Your task to perform on an android device: toggle javascript in the chrome app Image 0: 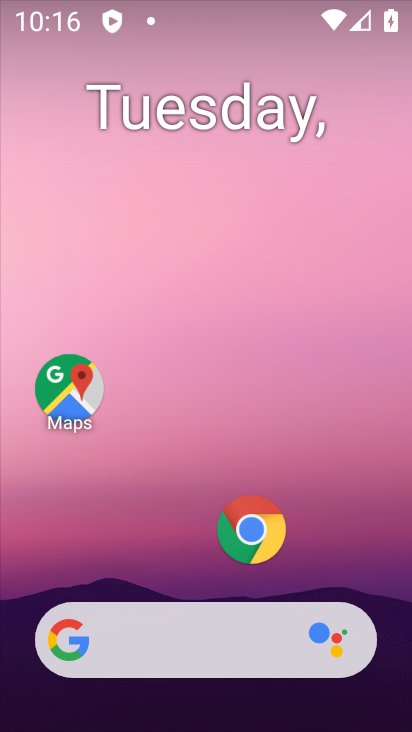
Step 0: click (249, 534)
Your task to perform on an android device: toggle javascript in the chrome app Image 1: 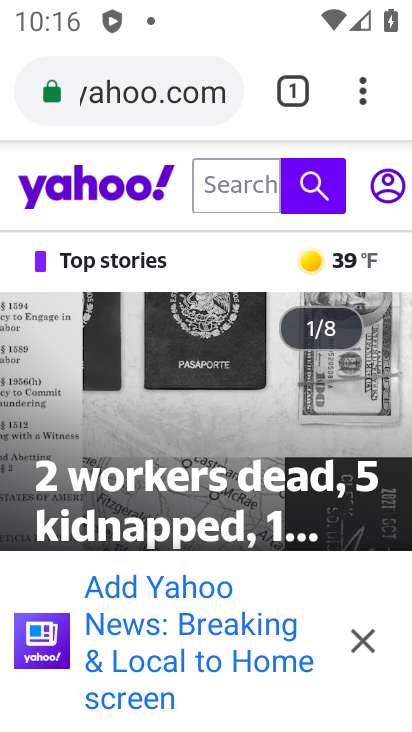
Step 1: click (371, 82)
Your task to perform on an android device: toggle javascript in the chrome app Image 2: 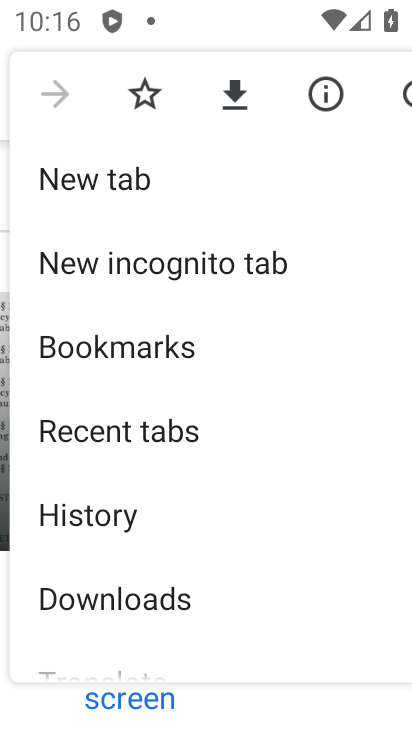
Step 2: drag from (149, 601) to (155, 282)
Your task to perform on an android device: toggle javascript in the chrome app Image 3: 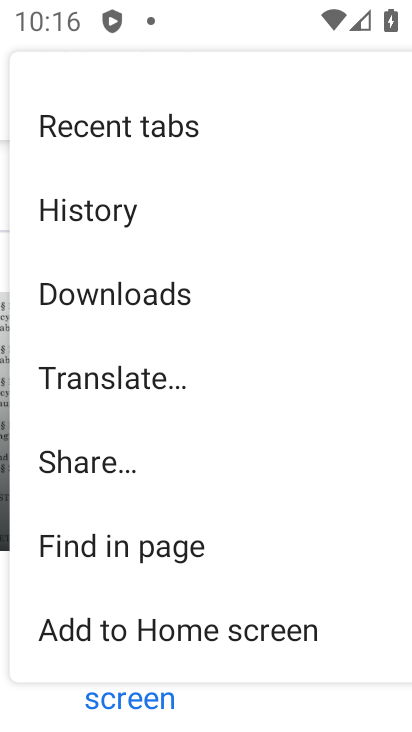
Step 3: drag from (160, 498) to (196, 211)
Your task to perform on an android device: toggle javascript in the chrome app Image 4: 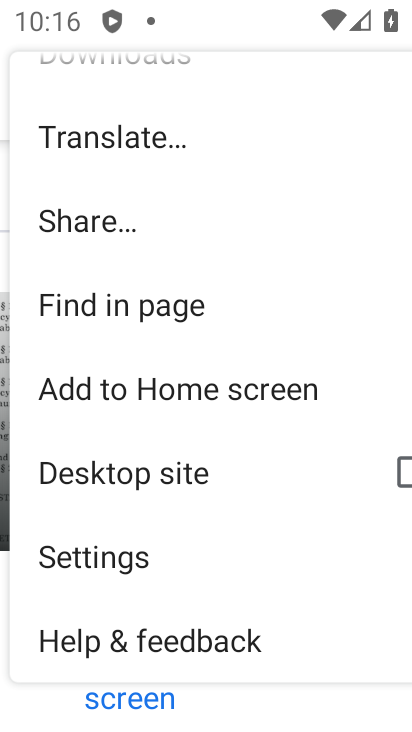
Step 4: click (96, 562)
Your task to perform on an android device: toggle javascript in the chrome app Image 5: 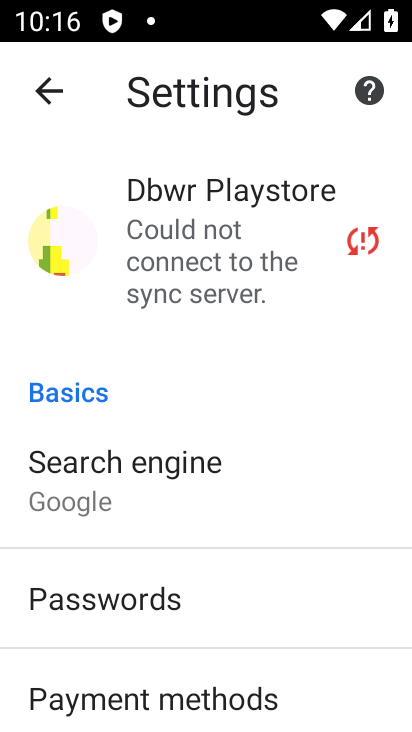
Step 5: drag from (114, 638) to (168, 239)
Your task to perform on an android device: toggle javascript in the chrome app Image 6: 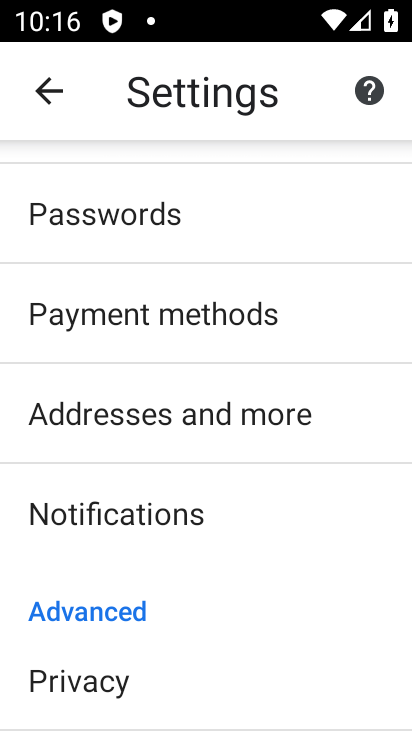
Step 6: drag from (134, 625) to (284, 323)
Your task to perform on an android device: toggle javascript in the chrome app Image 7: 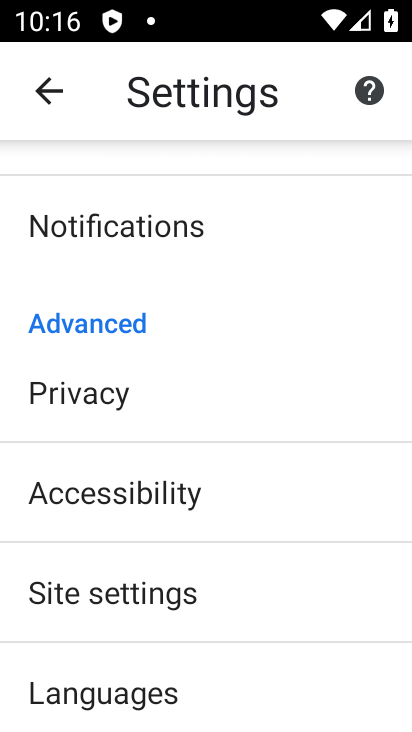
Step 7: click (144, 595)
Your task to perform on an android device: toggle javascript in the chrome app Image 8: 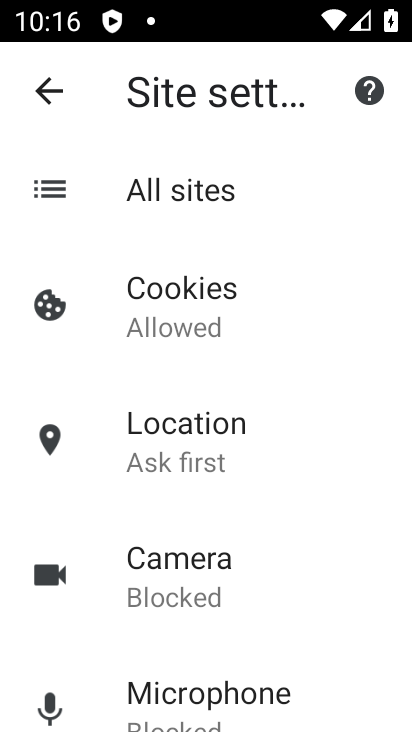
Step 8: drag from (188, 600) to (285, 316)
Your task to perform on an android device: toggle javascript in the chrome app Image 9: 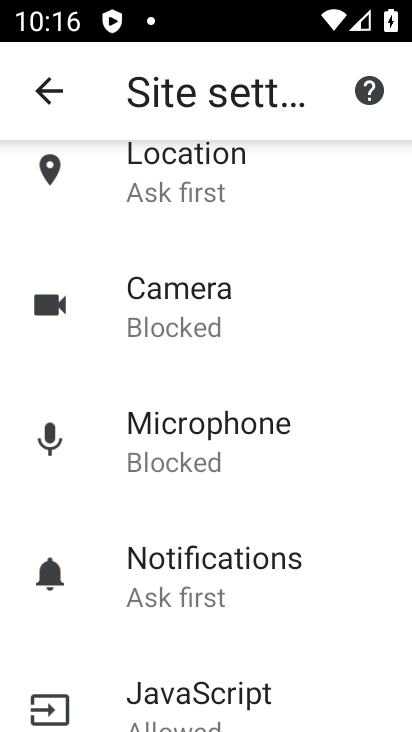
Step 9: drag from (207, 664) to (250, 487)
Your task to perform on an android device: toggle javascript in the chrome app Image 10: 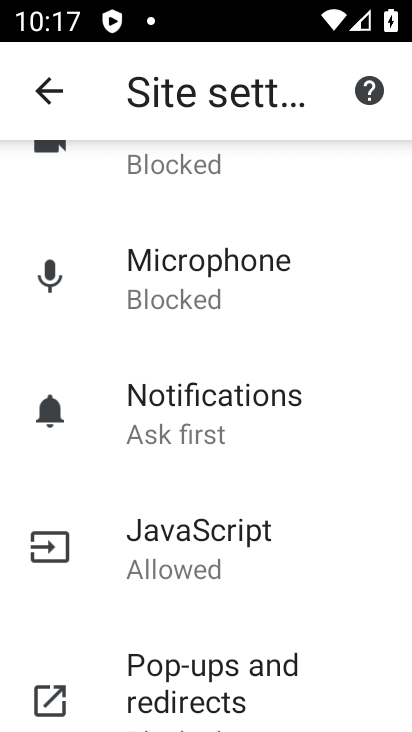
Step 10: click (168, 563)
Your task to perform on an android device: toggle javascript in the chrome app Image 11: 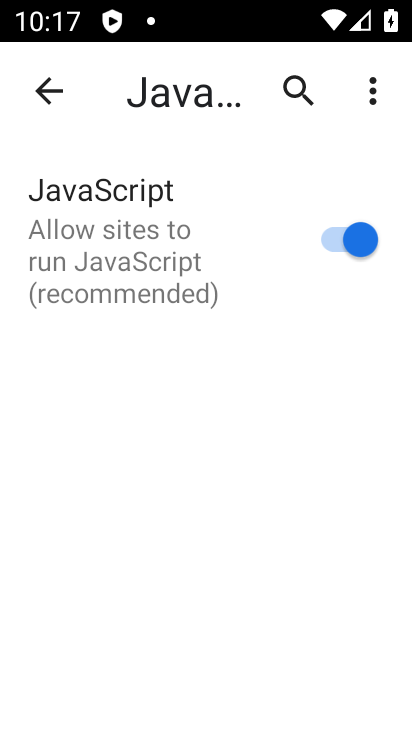
Step 11: click (341, 247)
Your task to perform on an android device: toggle javascript in the chrome app Image 12: 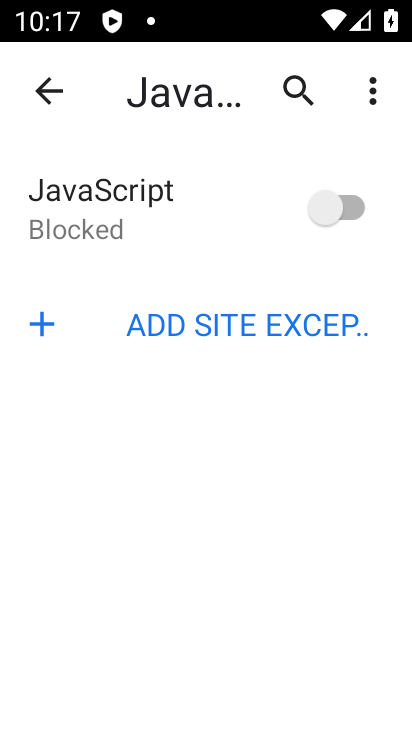
Step 12: task complete